Your task to perform on an android device: delete the emails in spam in the gmail app Image 0: 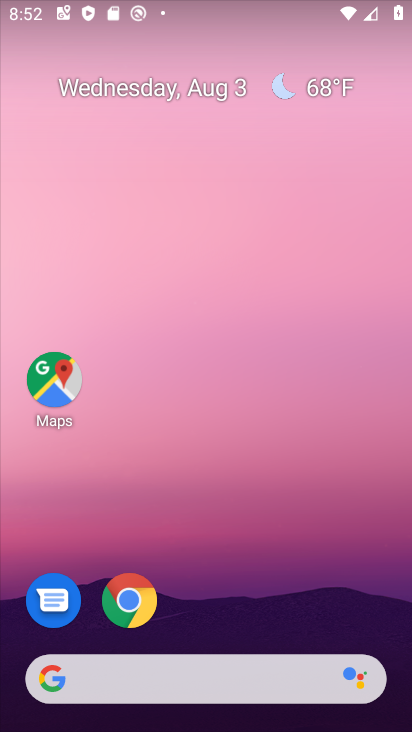
Step 0: drag from (195, 624) to (225, 148)
Your task to perform on an android device: delete the emails in spam in the gmail app Image 1: 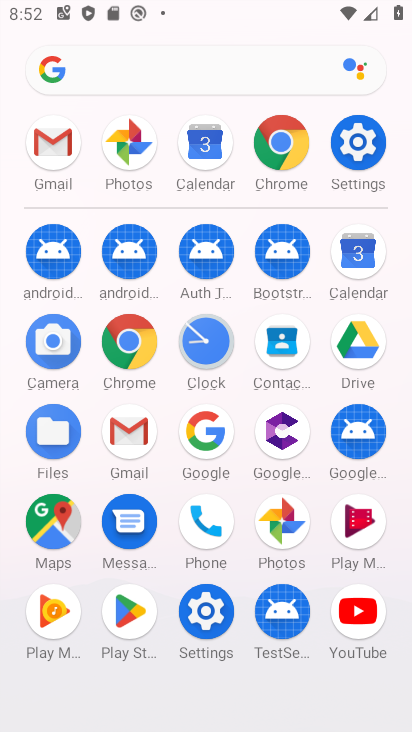
Step 1: click (124, 438)
Your task to perform on an android device: delete the emails in spam in the gmail app Image 2: 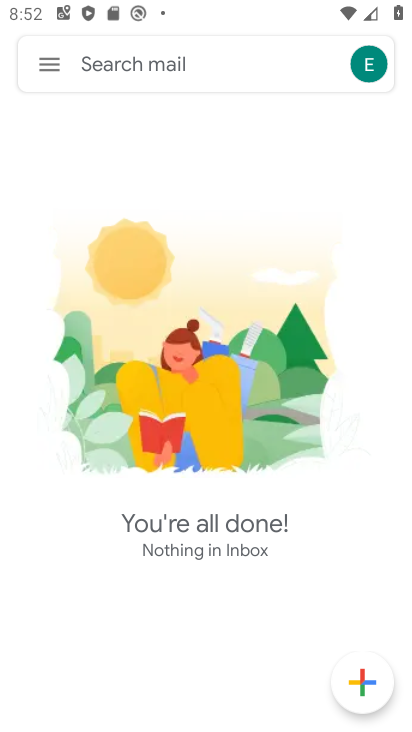
Step 2: click (51, 61)
Your task to perform on an android device: delete the emails in spam in the gmail app Image 3: 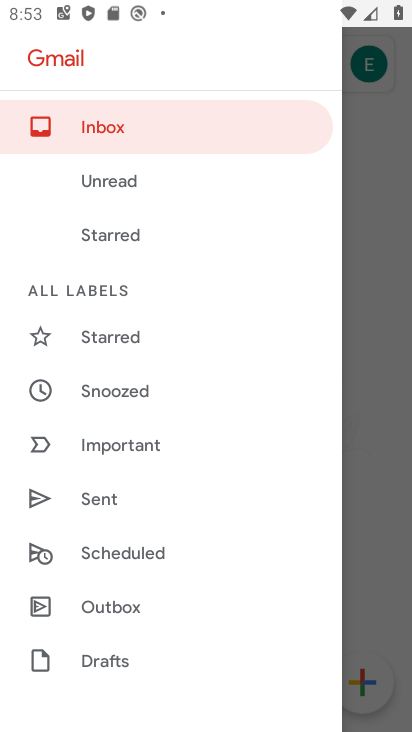
Step 3: drag from (123, 611) to (145, 470)
Your task to perform on an android device: delete the emails in spam in the gmail app Image 4: 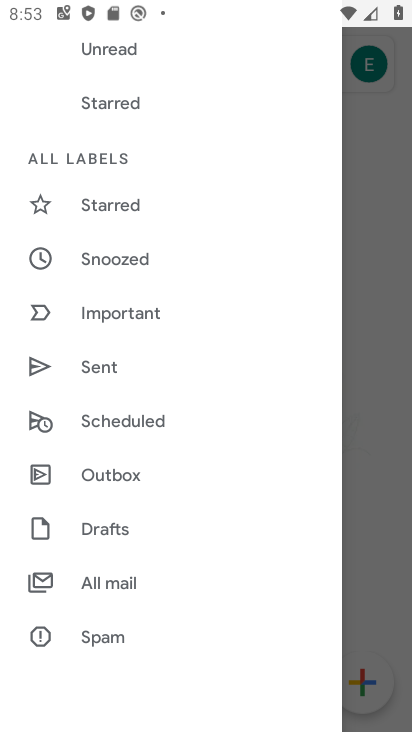
Step 4: click (110, 641)
Your task to perform on an android device: delete the emails in spam in the gmail app Image 5: 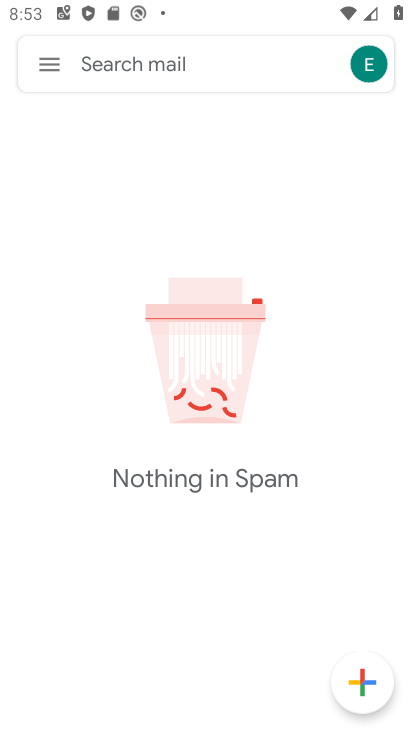
Step 5: task complete